Your task to perform on an android device: find photos in the google photos app Image 0: 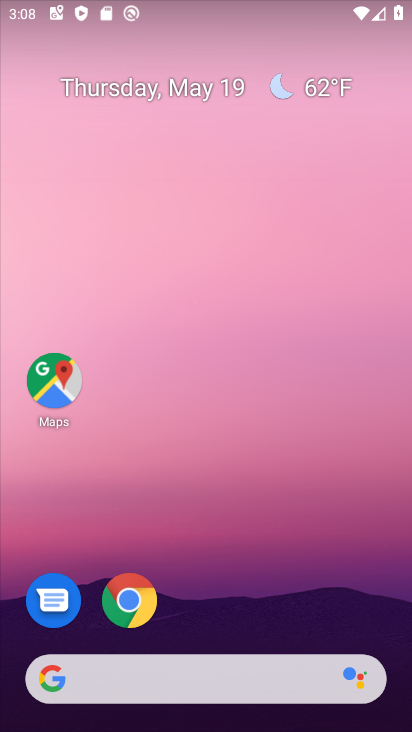
Step 0: press home button
Your task to perform on an android device: find photos in the google photos app Image 1: 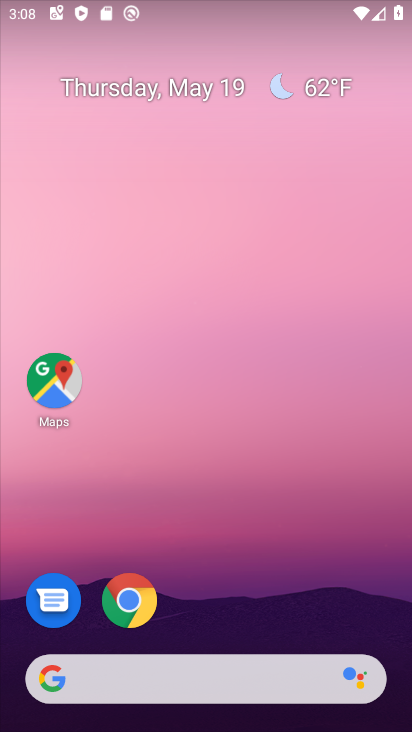
Step 1: drag from (57, 551) to (224, 226)
Your task to perform on an android device: find photos in the google photos app Image 2: 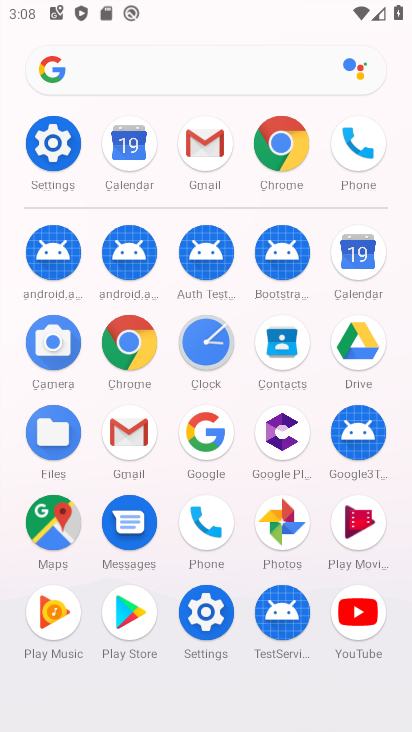
Step 2: click (271, 521)
Your task to perform on an android device: find photos in the google photos app Image 3: 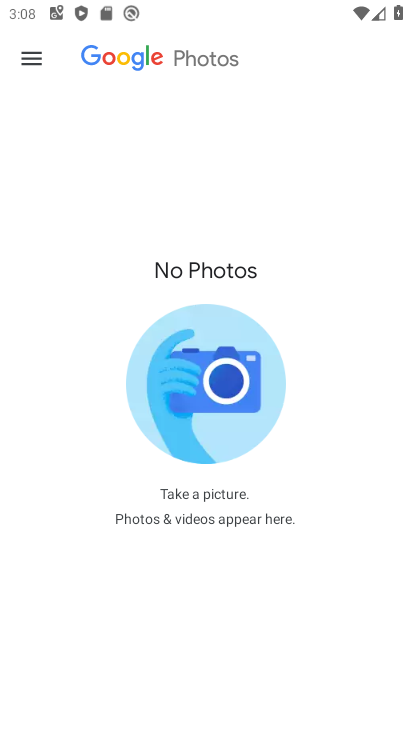
Step 3: click (46, 60)
Your task to perform on an android device: find photos in the google photos app Image 4: 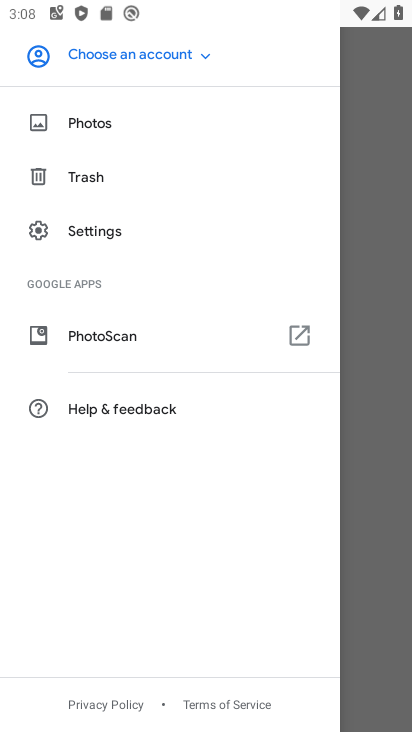
Step 4: click (132, 132)
Your task to perform on an android device: find photos in the google photos app Image 5: 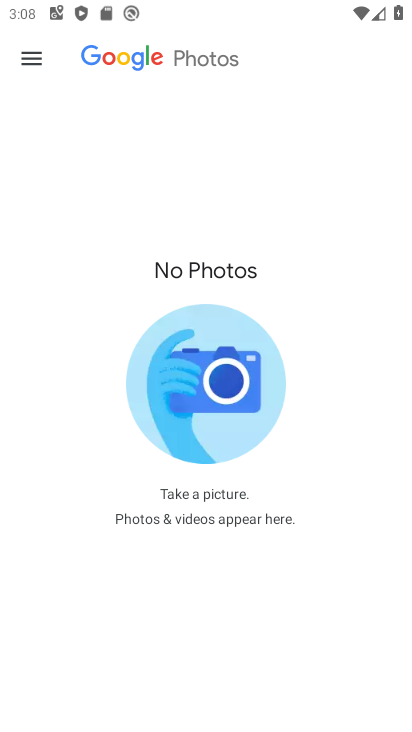
Step 5: task complete